Your task to perform on an android device: set the timer Image 0: 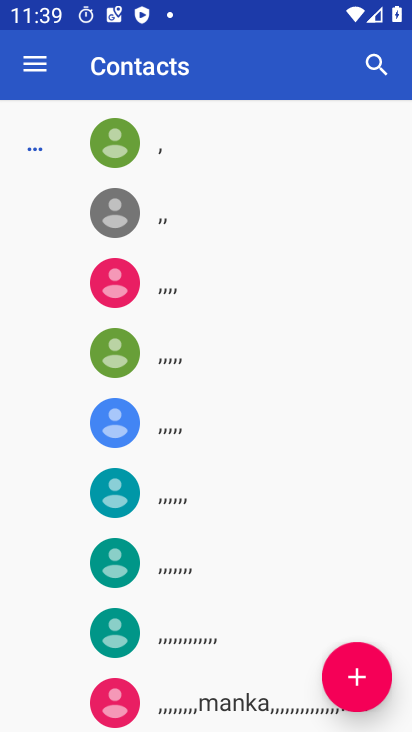
Step 0: press home button
Your task to perform on an android device: set the timer Image 1: 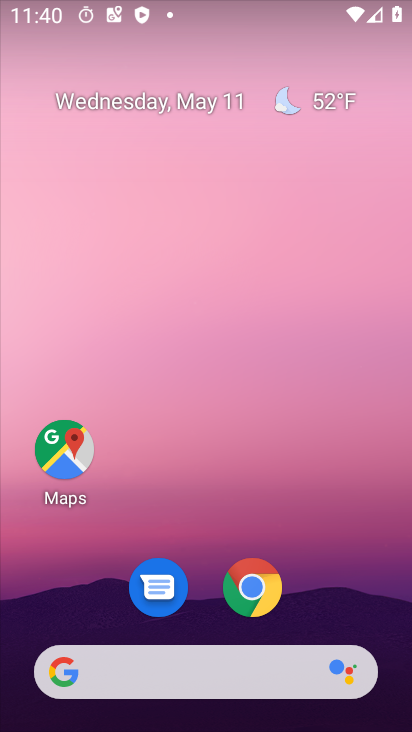
Step 1: drag from (239, 704) to (228, 329)
Your task to perform on an android device: set the timer Image 2: 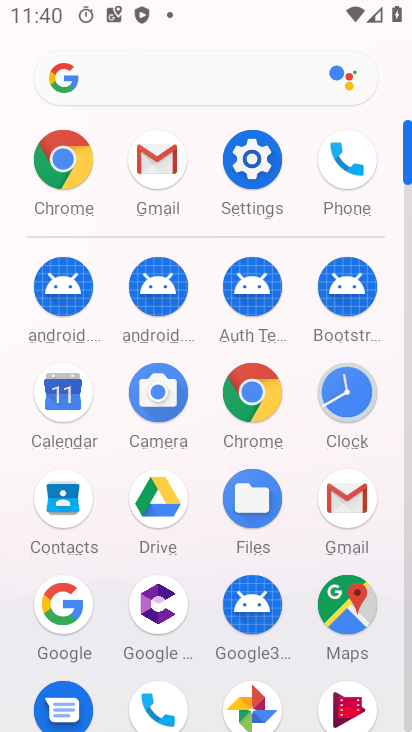
Step 2: click (326, 406)
Your task to perform on an android device: set the timer Image 3: 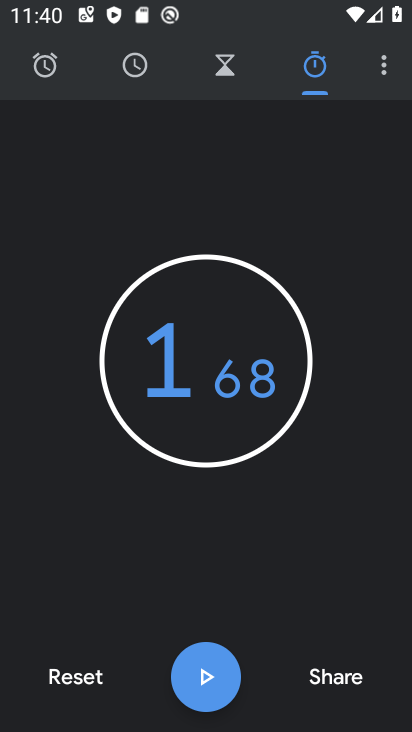
Step 3: click (367, 83)
Your task to perform on an android device: set the timer Image 4: 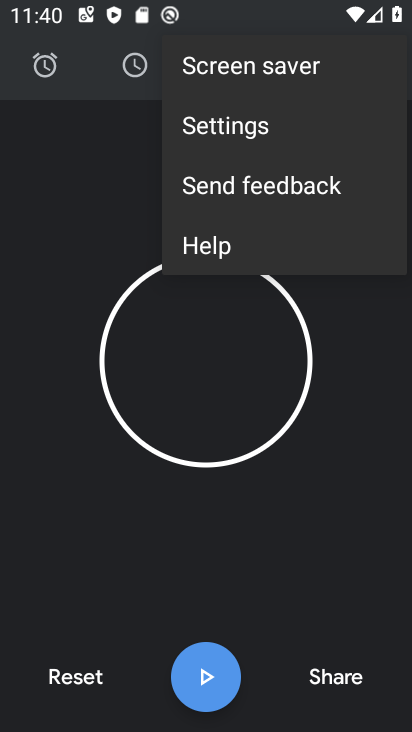
Step 4: click (255, 148)
Your task to perform on an android device: set the timer Image 5: 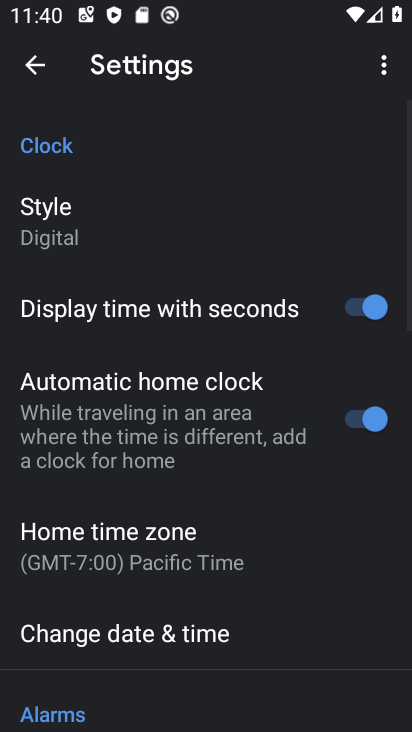
Step 5: drag from (191, 512) to (217, 414)
Your task to perform on an android device: set the timer Image 6: 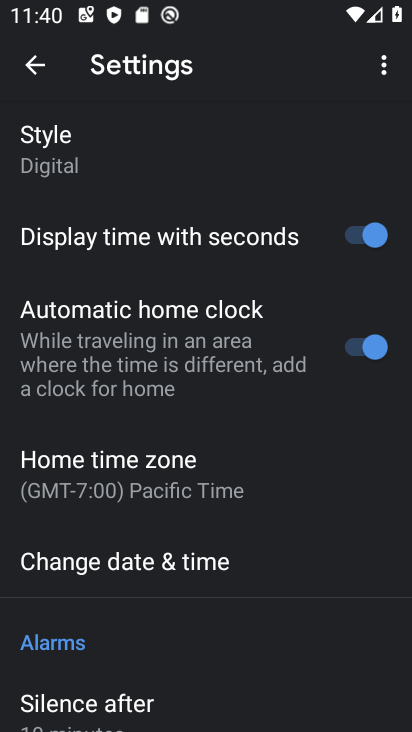
Step 6: drag from (153, 585) to (169, 286)
Your task to perform on an android device: set the timer Image 7: 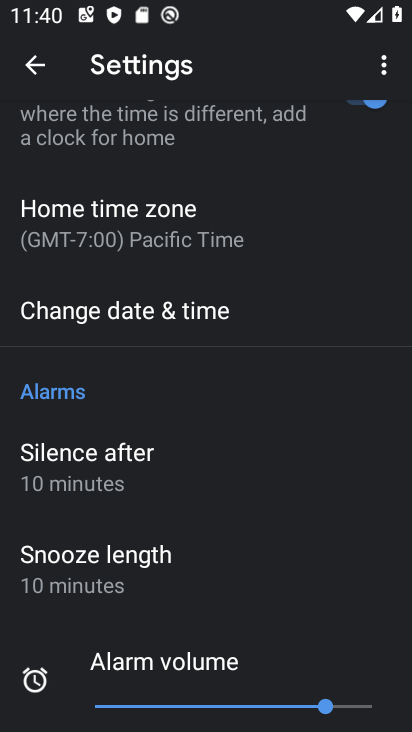
Step 7: drag from (144, 513) to (207, 297)
Your task to perform on an android device: set the timer Image 8: 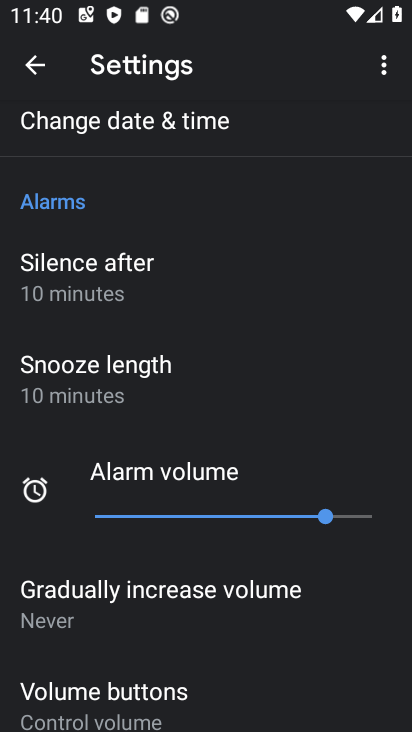
Step 8: drag from (190, 671) to (262, 334)
Your task to perform on an android device: set the timer Image 9: 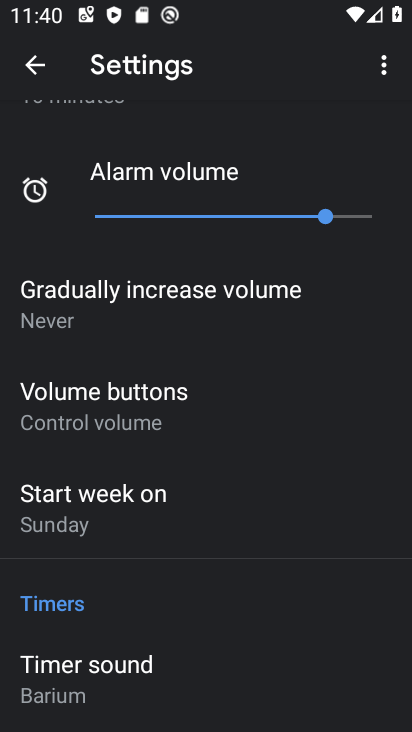
Step 9: click (40, 74)
Your task to perform on an android device: set the timer Image 10: 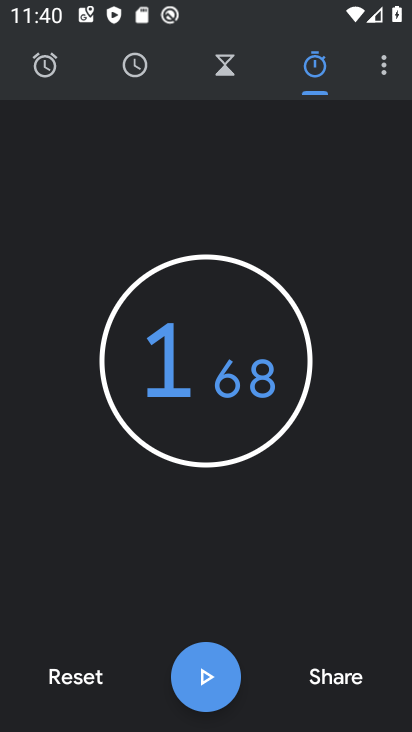
Step 10: click (222, 74)
Your task to perform on an android device: set the timer Image 11: 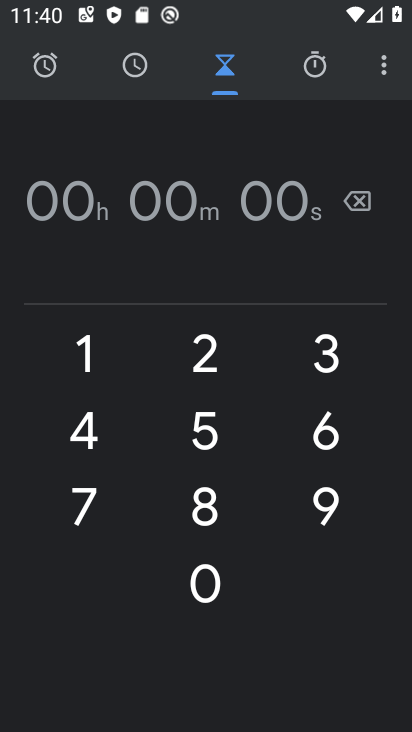
Step 11: click (197, 491)
Your task to perform on an android device: set the timer Image 12: 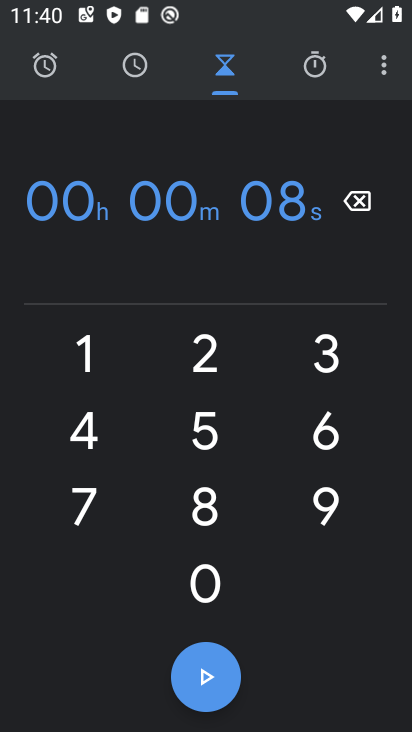
Step 12: click (82, 425)
Your task to perform on an android device: set the timer Image 13: 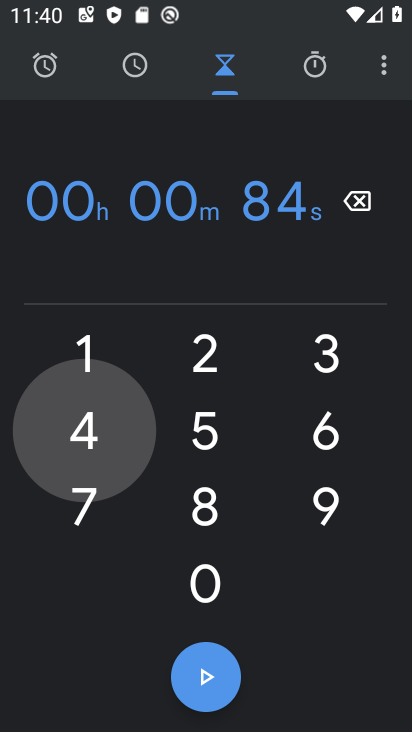
Step 13: click (200, 362)
Your task to perform on an android device: set the timer Image 14: 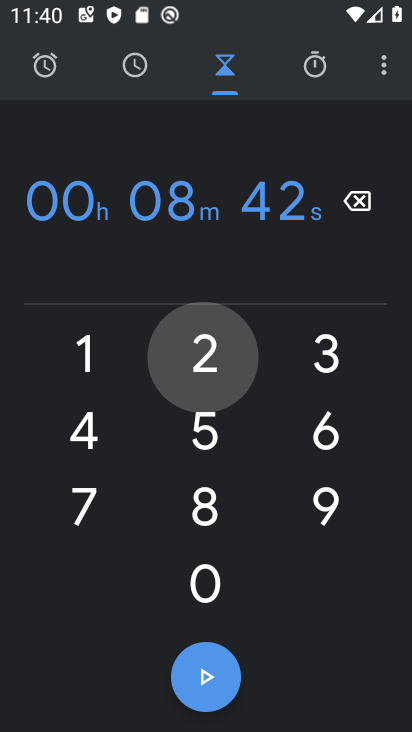
Step 14: click (218, 395)
Your task to perform on an android device: set the timer Image 15: 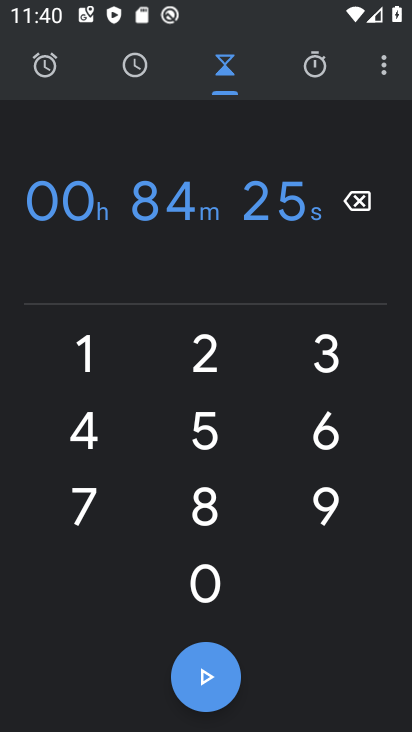
Step 15: click (332, 435)
Your task to perform on an android device: set the timer Image 16: 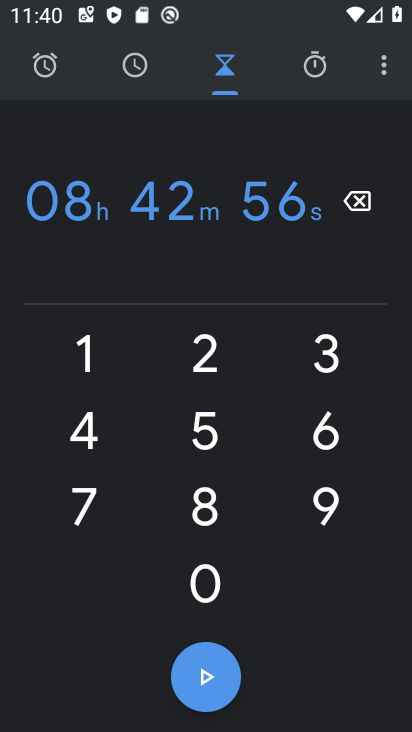
Step 16: click (235, 361)
Your task to perform on an android device: set the timer Image 17: 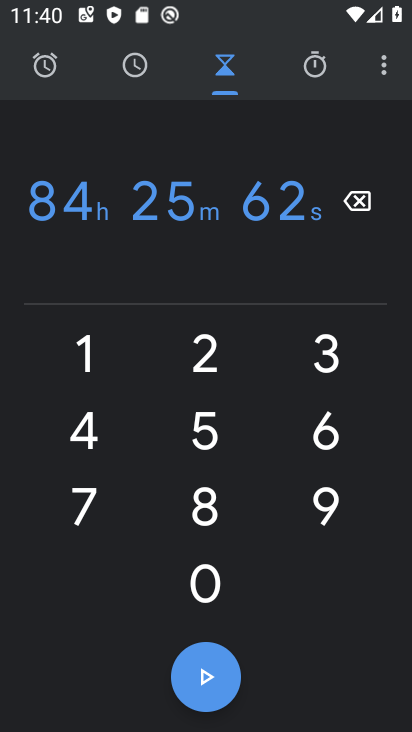
Step 17: click (196, 689)
Your task to perform on an android device: set the timer Image 18: 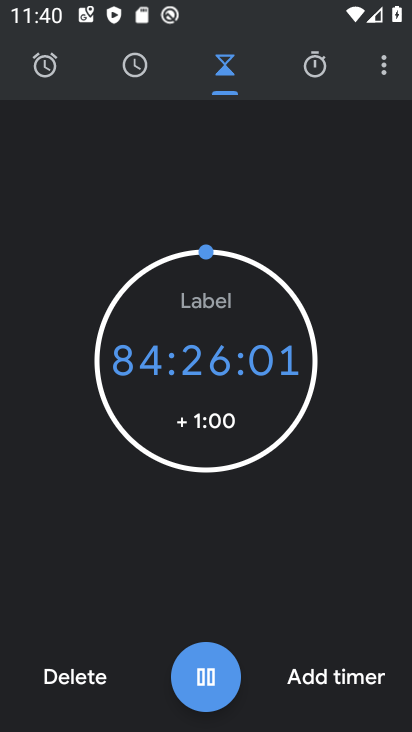
Step 18: click (212, 684)
Your task to perform on an android device: set the timer Image 19: 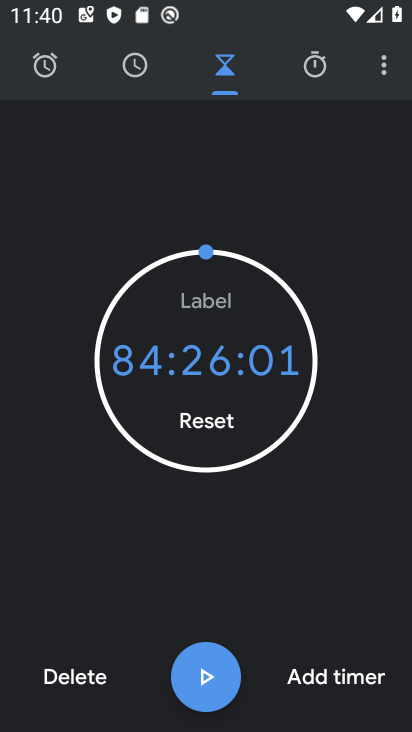
Step 19: task complete